Your task to perform on an android device: turn off priority inbox in the gmail app Image 0: 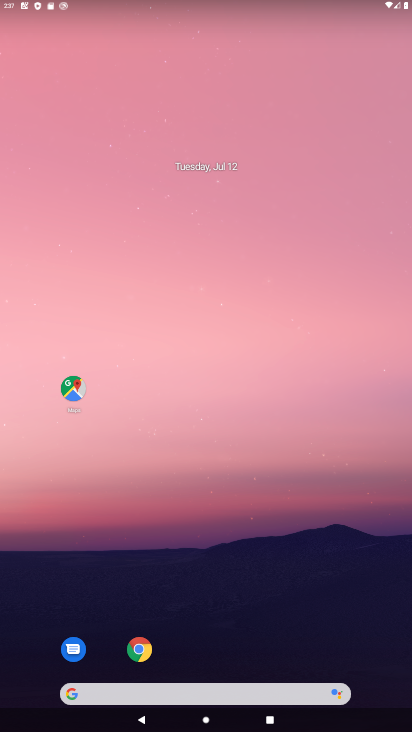
Step 0: drag from (275, 630) to (248, 117)
Your task to perform on an android device: turn off priority inbox in the gmail app Image 1: 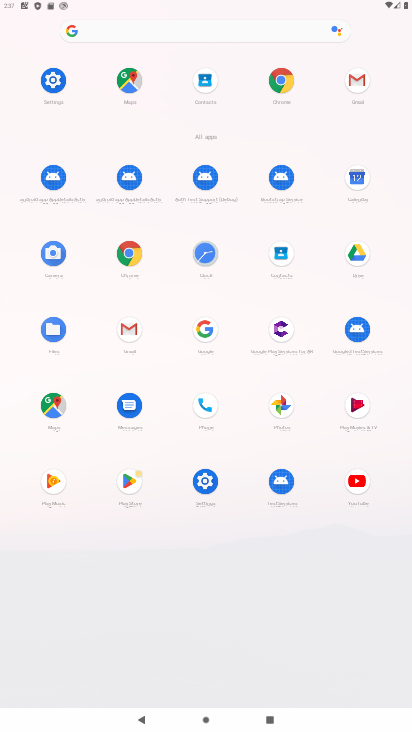
Step 1: click (138, 333)
Your task to perform on an android device: turn off priority inbox in the gmail app Image 2: 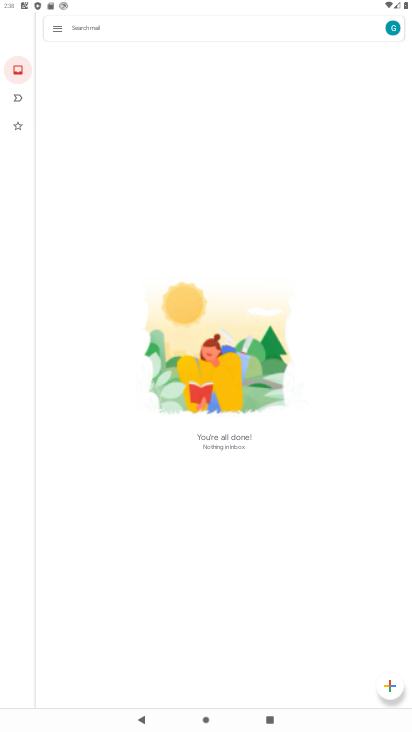
Step 2: press home button
Your task to perform on an android device: turn off priority inbox in the gmail app Image 3: 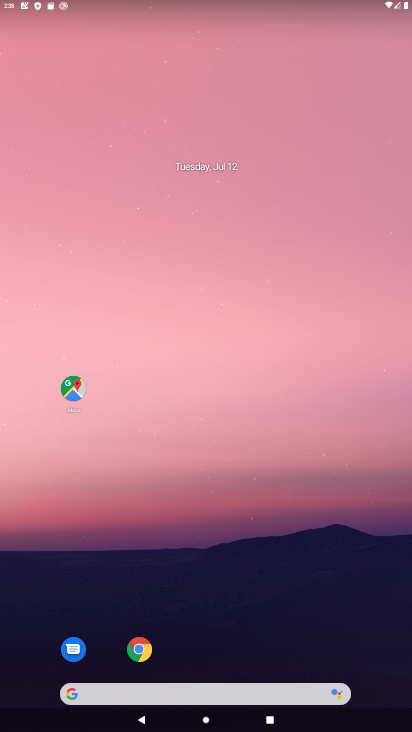
Step 3: drag from (205, 640) to (229, 26)
Your task to perform on an android device: turn off priority inbox in the gmail app Image 4: 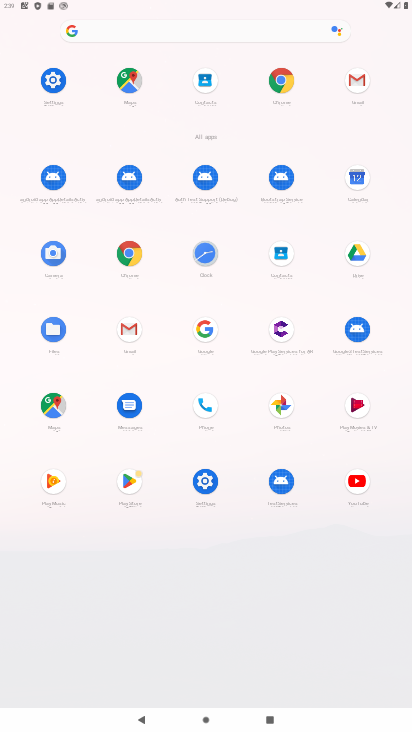
Step 4: click (126, 316)
Your task to perform on an android device: turn off priority inbox in the gmail app Image 5: 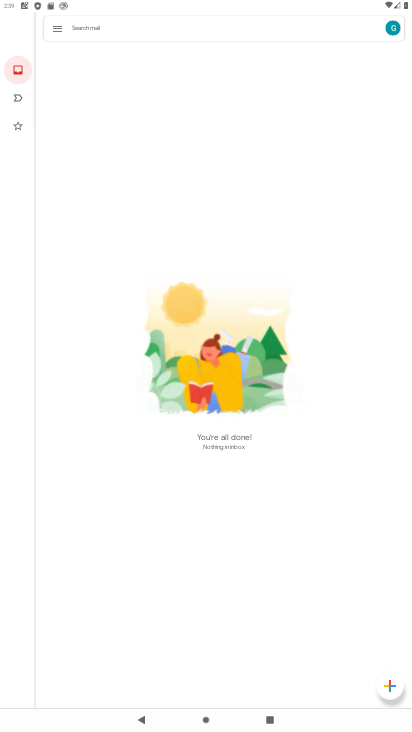
Step 5: click (51, 28)
Your task to perform on an android device: turn off priority inbox in the gmail app Image 6: 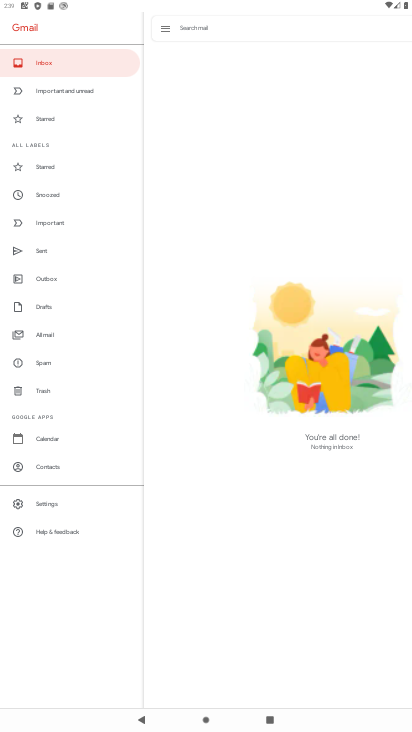
Step 6: click (39, 493)
Your task to perform on an android device: turn off priority inbox in the gmail app Image 7: 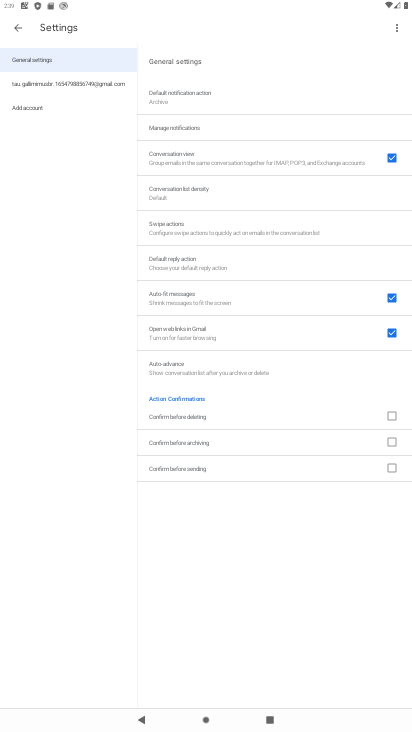
Step 7: click (21, 85)
Your task to perform on an android device: turn off priority inbox in the gmail app Image 8: 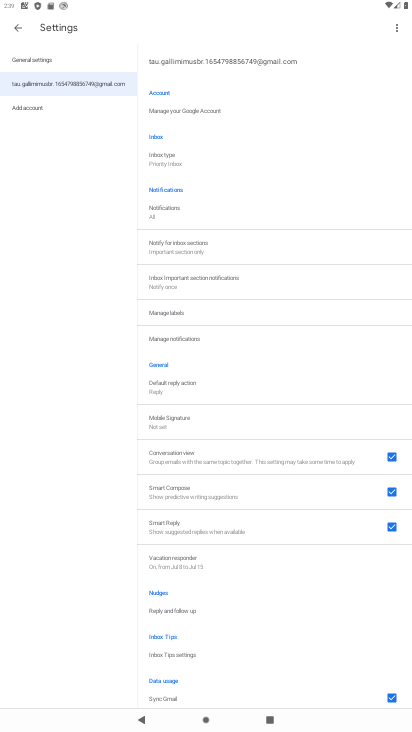
Step 8: click (174, 154)
Your task to perform on an android device: turn off priority inbox in the gmail app Image 9: 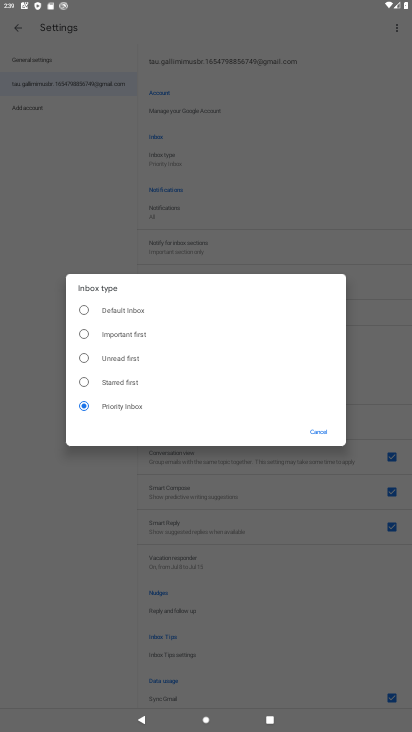
Step 9: click (105, 314)
Your task to perform on an android device: turn off priority inbox in the gmail app Image 10: 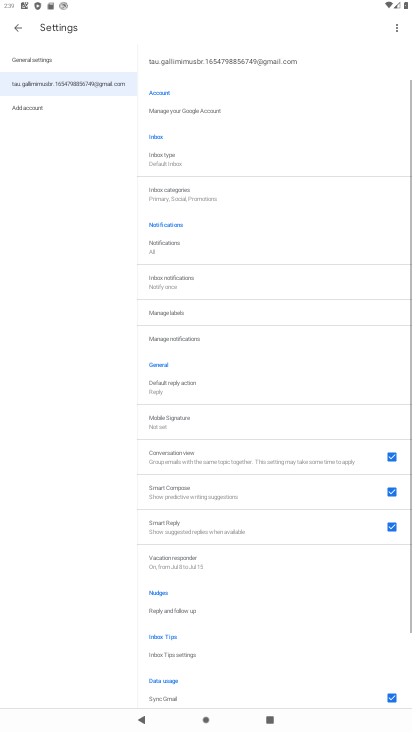
Step 10: task complete